Your task to perform on an android device: Open display settings Image 0: 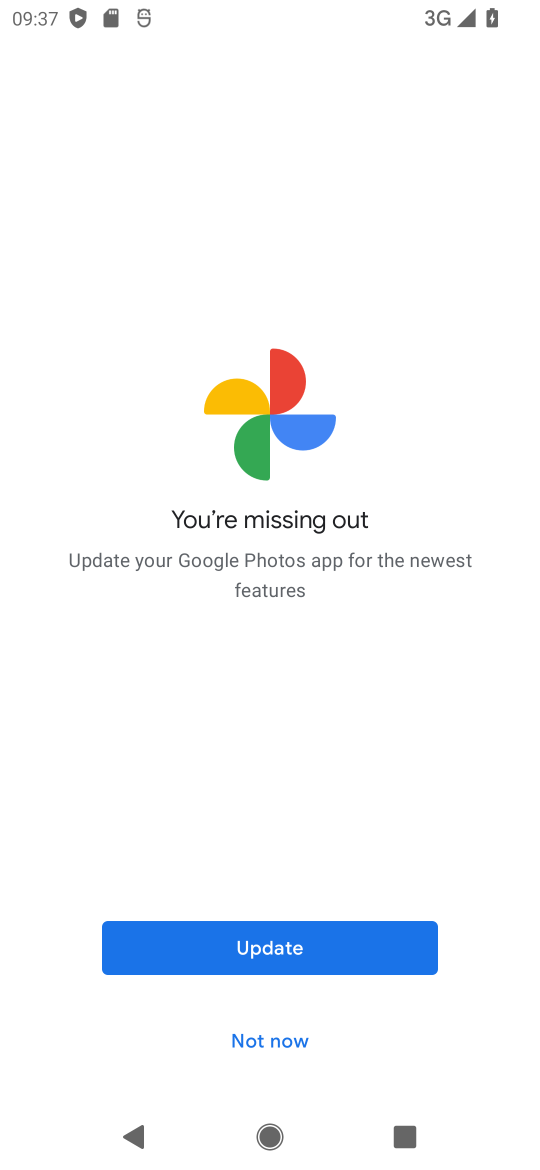
Step 0: press home button
Your task to perform on an android device: Open display settings Image 1: 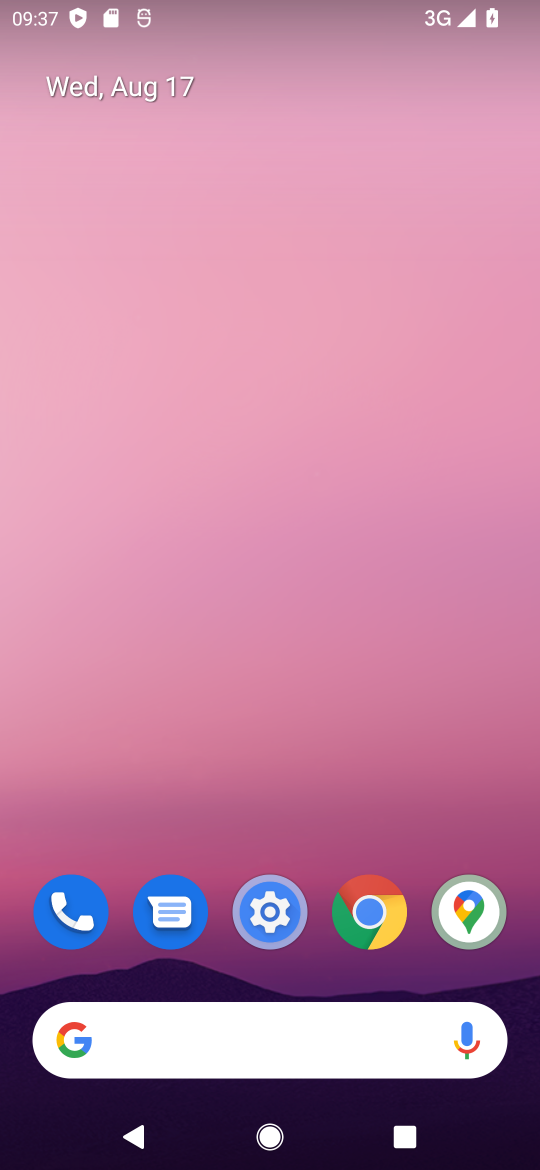
Step 1: drag from (211, 846) to (211, 348)
Your task to perform on an android device: Open display settings Image 2: 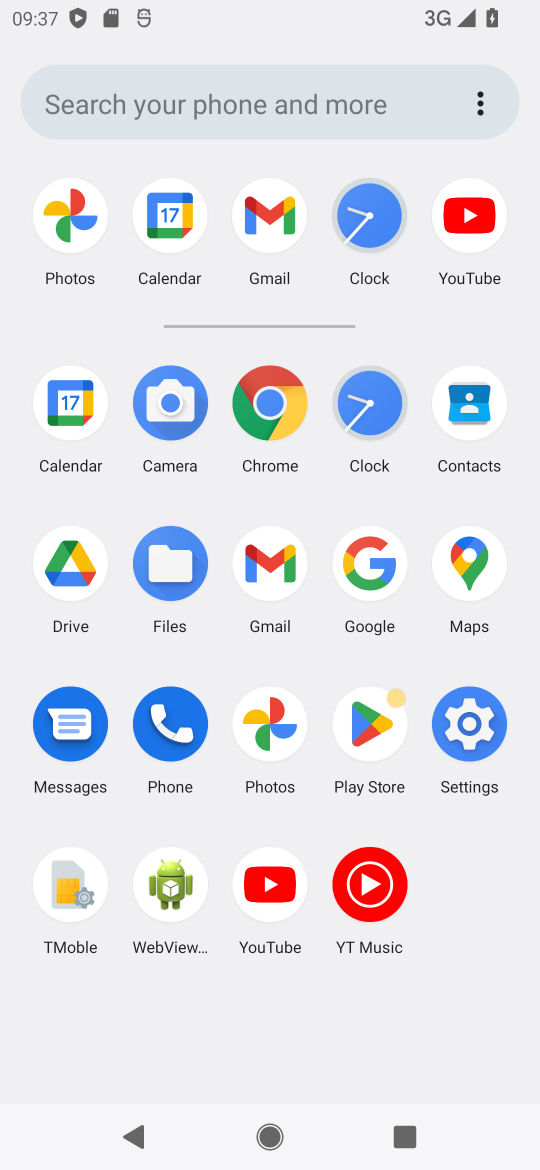
Step 2: click (459, 730)
Your task to perform on an android device: Open display settings Image 3: 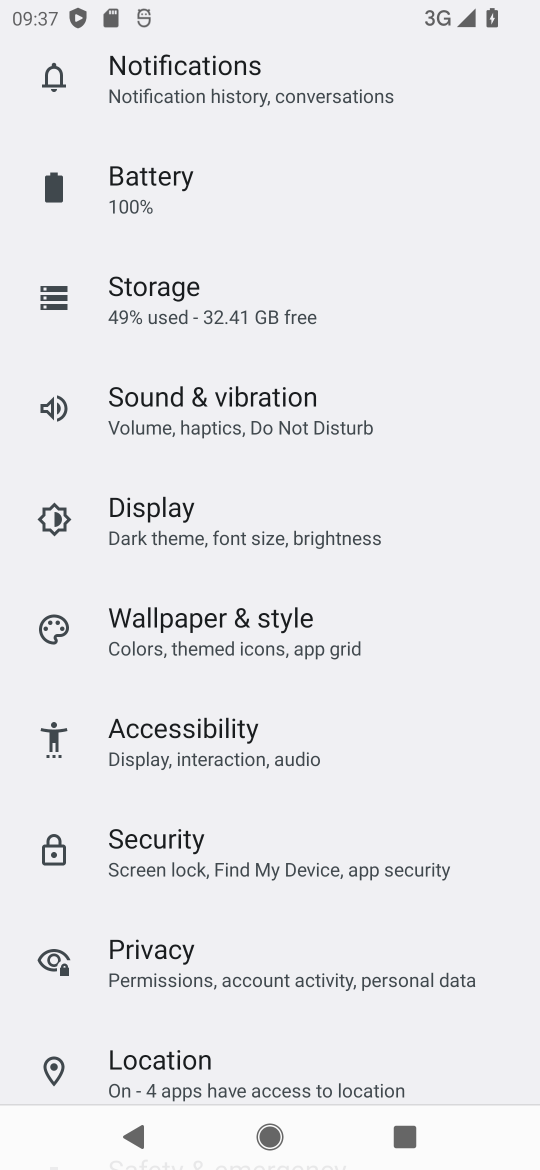
Step 3: drag from (195, 943) to (201, 302)
Your task to perform on an android device: Open display settings Image 4: 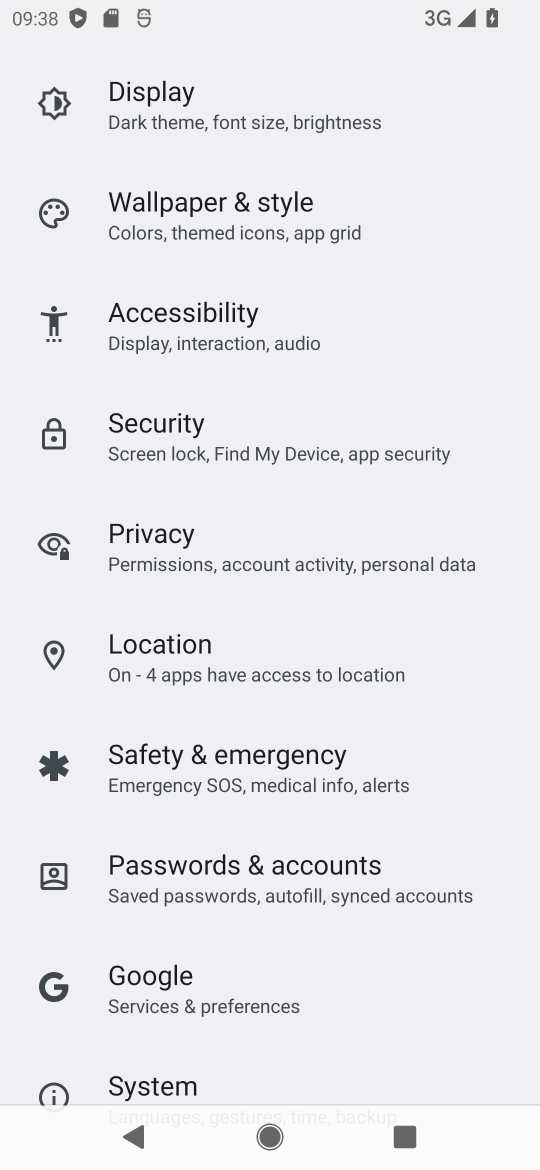
Step 4: click (234, 103)
Your task to perform on an android device: Open display settings Image 5: 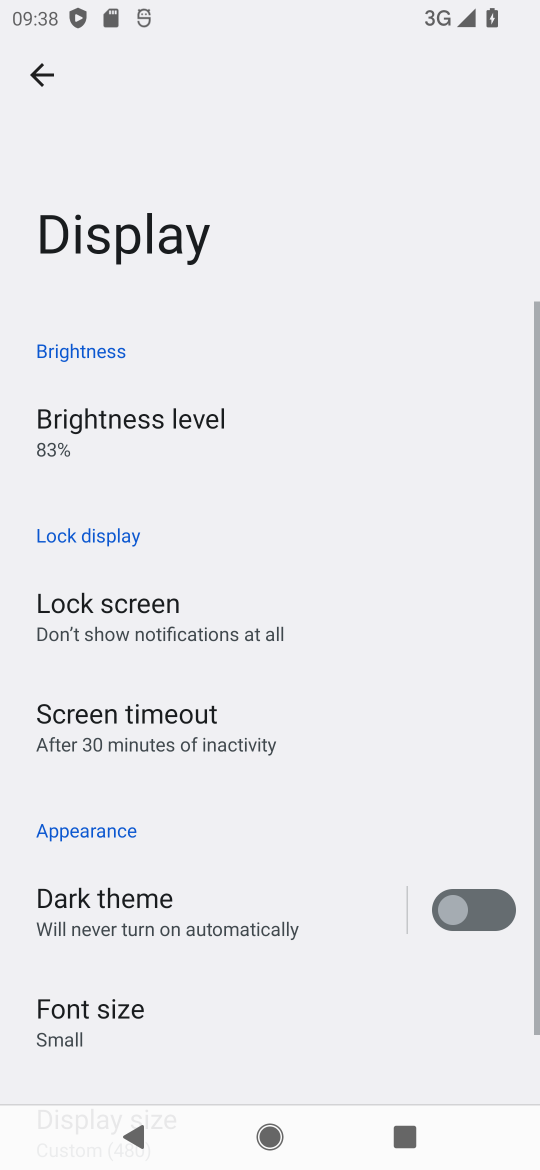
Step 5: task complete